Your task to perform on an android device: delete the emails in spam in the gmail app Image 0: 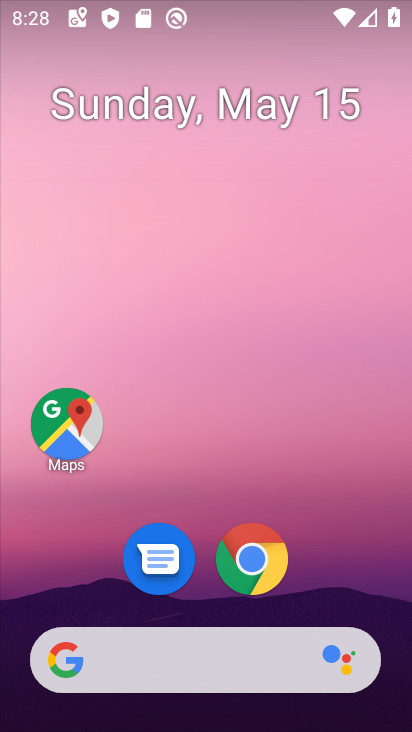
Step 0: drag from (362, 590) to (358, 31)
Your task to perform on an android device: delete the emails in spam in the gmail app Image 1: 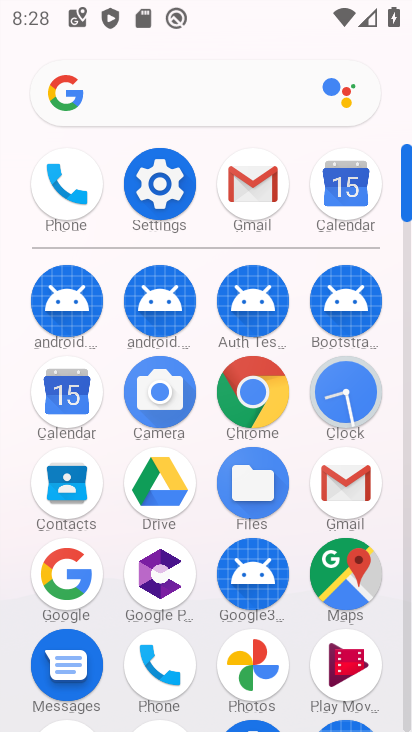
Step 1: click (256, 180)
Your task to perform on an android device: delete the emails in spam in the gmail app Image 2: 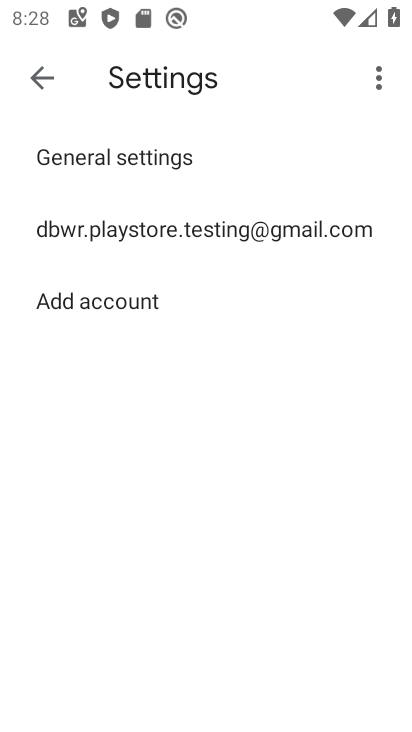
Step 2: click (43, 86)
Your task to perform on an android device: delete the emails in spam in the gmail app Image 3: 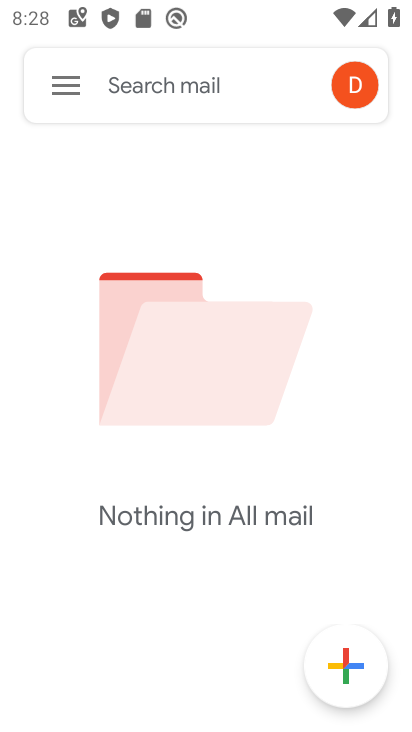
Step 3: click (51, 86)
Your task to perform on an android device: delete the emails in spam in the gmail app Image 4: 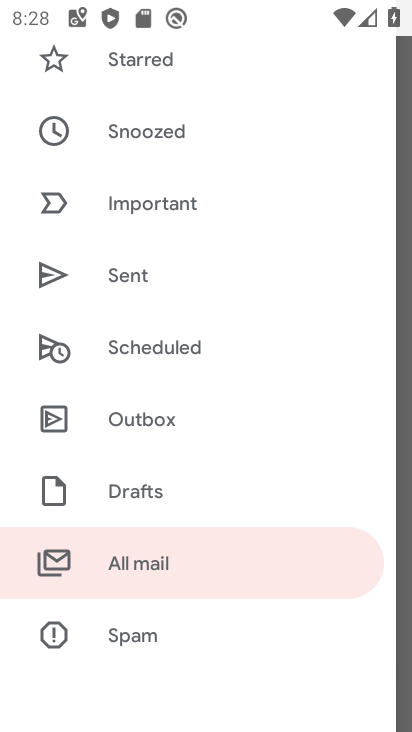
Step 4: click (146, 641)
Your task to perform on an android device: delete the emails in spam in the gmail app Image 5: 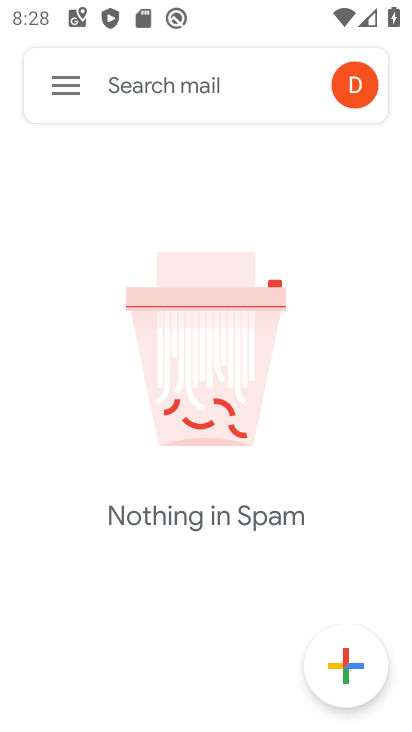
Step 5: task complete